Your task to perform on an android device: Open my contact list Image 0: 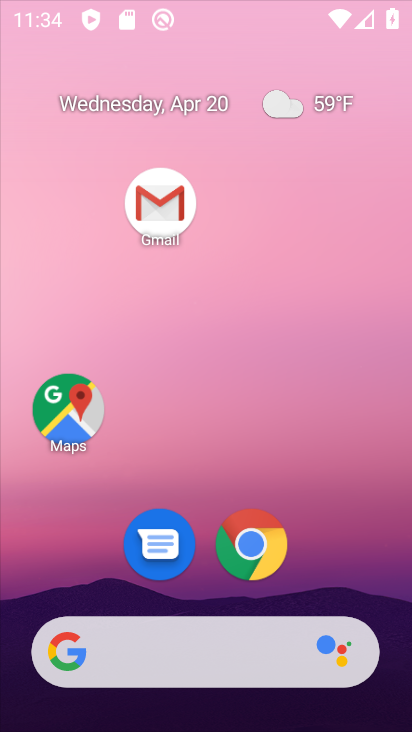
Step 0: drag from (329, 558) to (367, 92)
Your task to perform on an android device: Open my contact list Image 1: 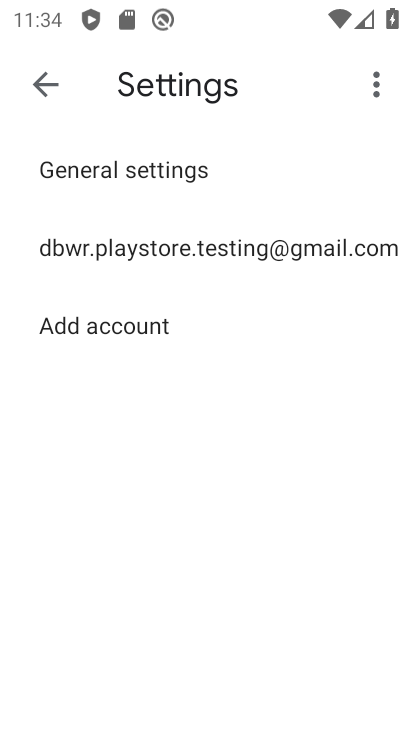
Step 1: press home button
Your task to perform on an android device: Open my contact list Image 2: 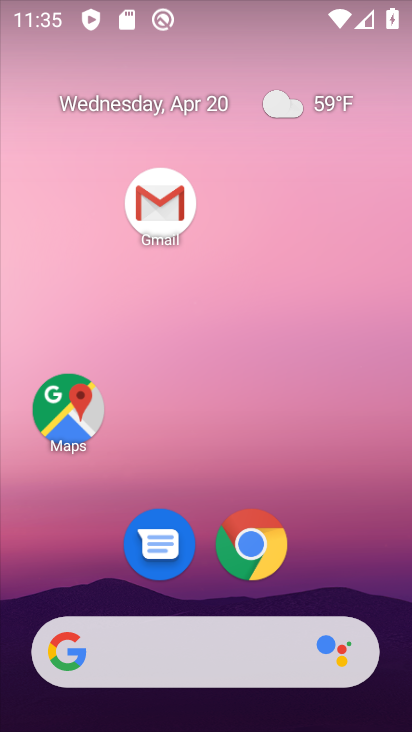
Step 2: drag from (311, 395) to (312, 109)
Your task to perform on an android device: Open my contact list Image 3: 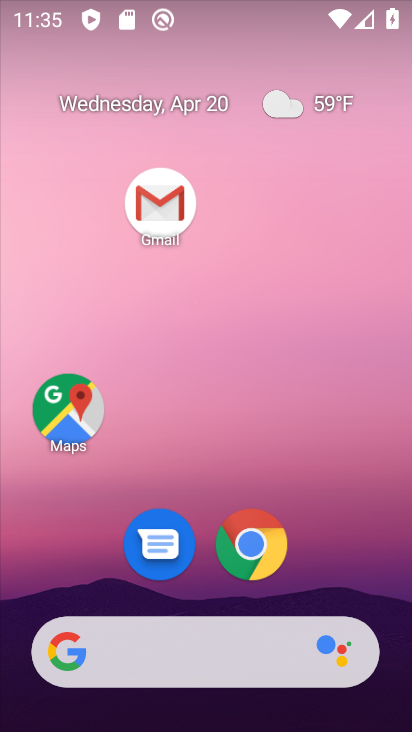
Step 3: drag from (325, 543) to (373, 118)
Your task to perform on an android device: Open my contact list Image 4: 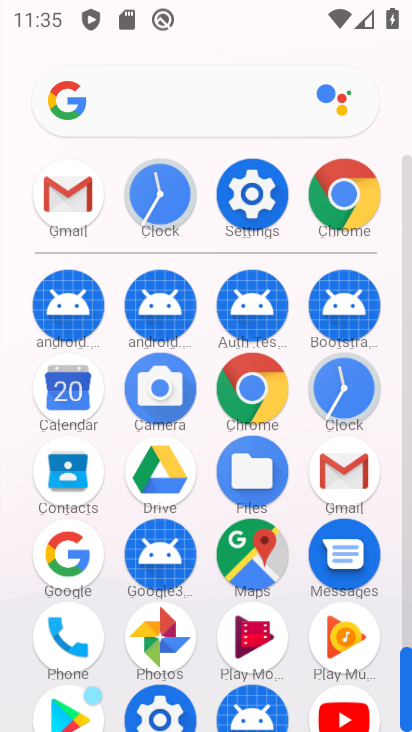
Step 4: drag from (245, 512) to (296, 198)
Your task to perform on an android device: Open my contact list Image 5: 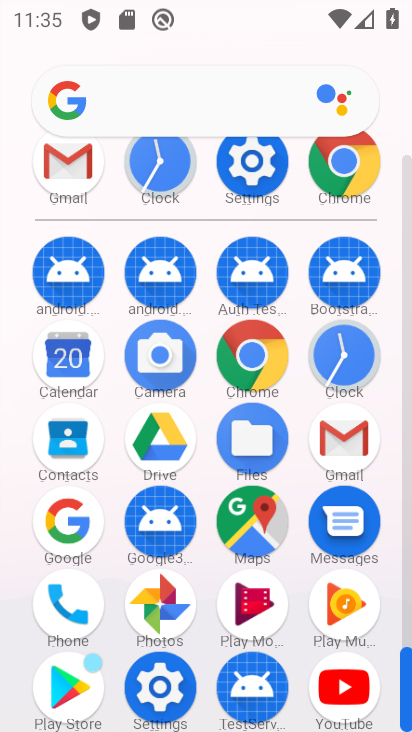
Step 5: click (50, 455)
Your task to perform on an android device: Open my contact list Image 6: 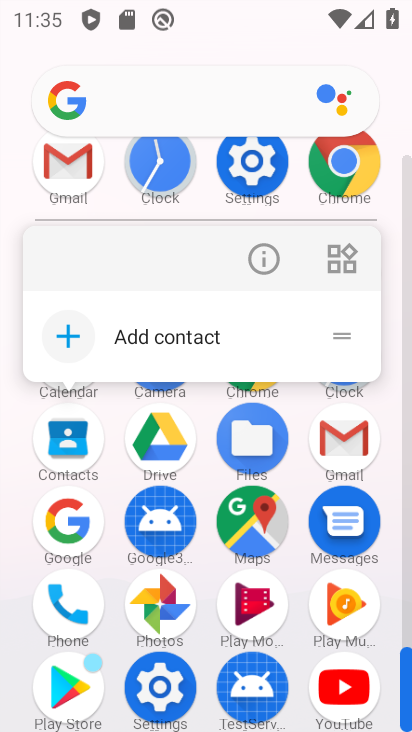
Step 6: click (59, 460)
Your task to perform on an android device: Open my contact list Image 7: 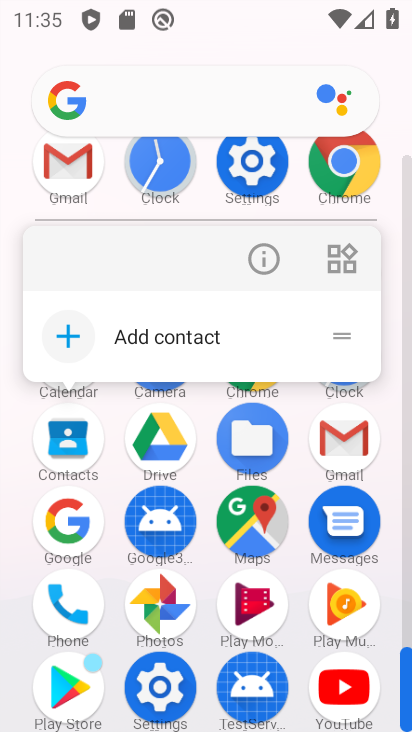
Step 7: click (59, 460)
Your task to perform on an android device: Open my contact list Image 8: 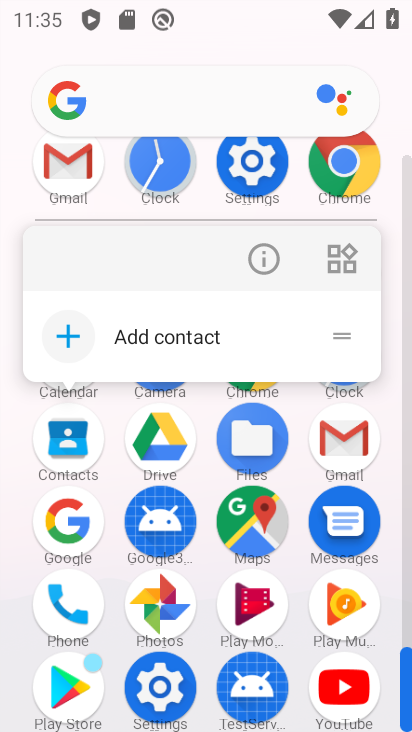
Step 8: click (59, 460)
Your task to perform on an android device: Open my contact list Image 9: 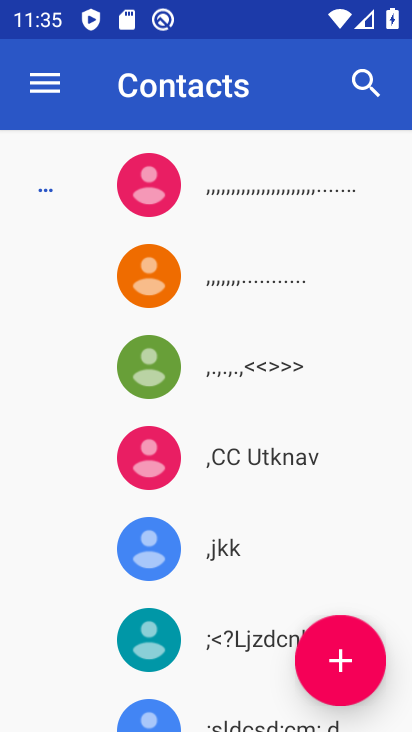
Step 9: task complete